Your task to perform on an android device: toggle pop-ups in chrome Image 0: 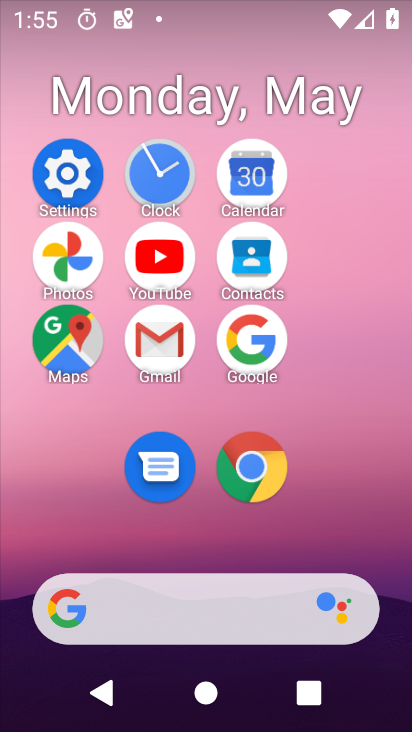
Step 0: click (263, 462)
Your task to perform on an android device: toggle pop-ups in chrome Image 1: 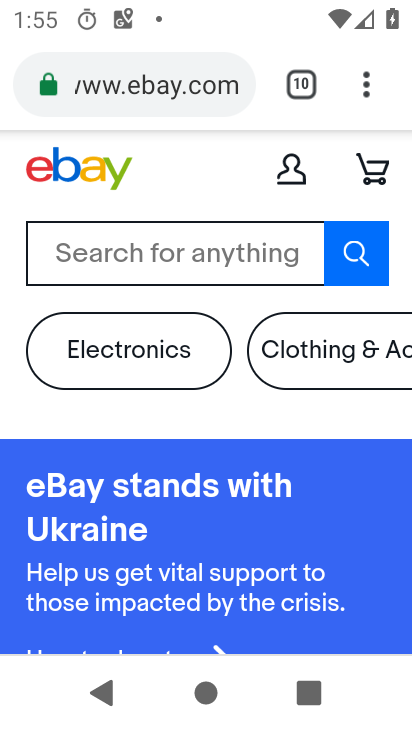
Step 1: click (371, 77)
Your task to perform on an android device: toggle pop-ups in chrome Image 2: 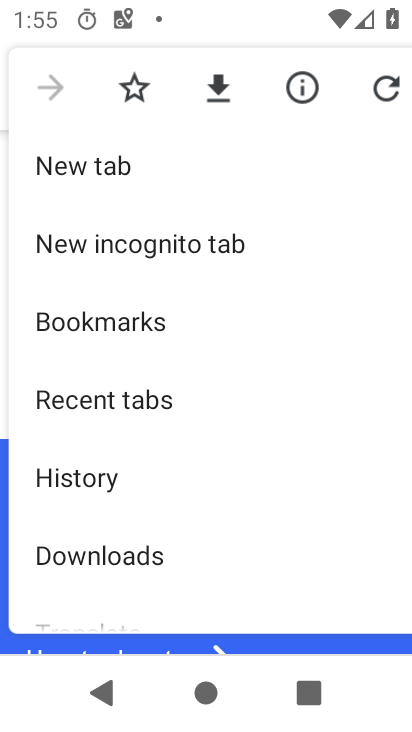
Step 2: drag from (227, 494) to (280, 189)
Your task to perform on an android device: toggle pop-ups in chrome Image 3: 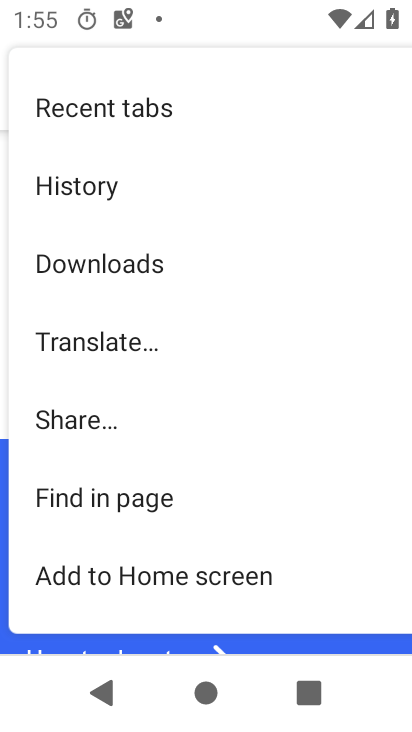
Step 3: drag from (136, 473) to (168, 164)
Your task to perform on an android device: toggle pop-ups in chrome Image 4: 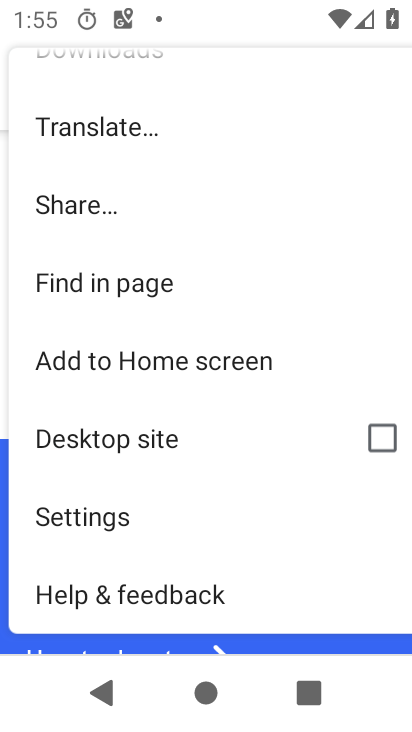
Step 4: click (124, 499)
Your task to perform on an android device: toggle pop-ups in chrome Image 5: 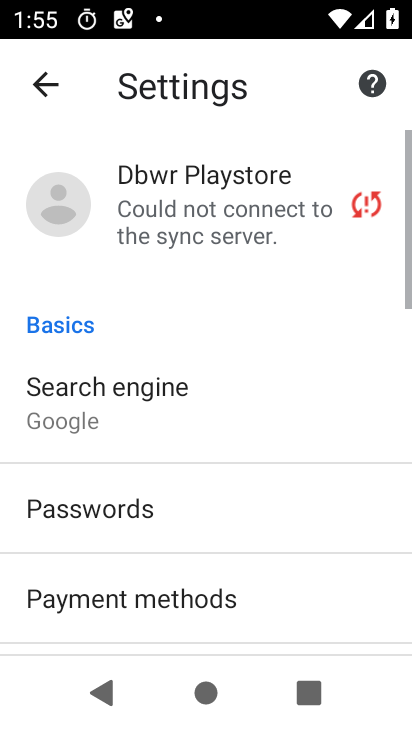
Step 5: drag from (121, 485) to (177, 143)
Your task to perform on an android device: toggle pop-ups in chrome Image 6: 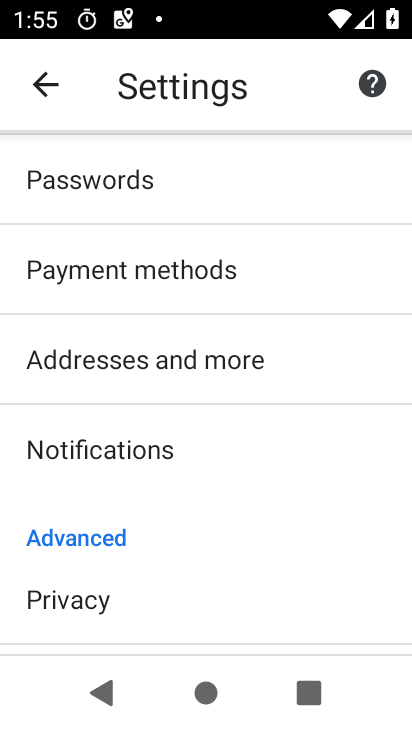
Step 6: drag from (163, 567) to (216, 228)
Your task to perform on an android device: toggle pop-ups in chrome Image 7: 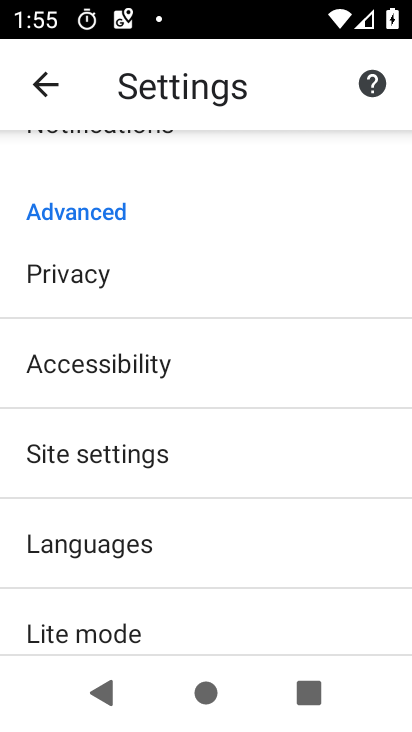
Step 7: click (192, 458)
Your task to perform on an android device: toggle pop-ups in chrome Image 8: 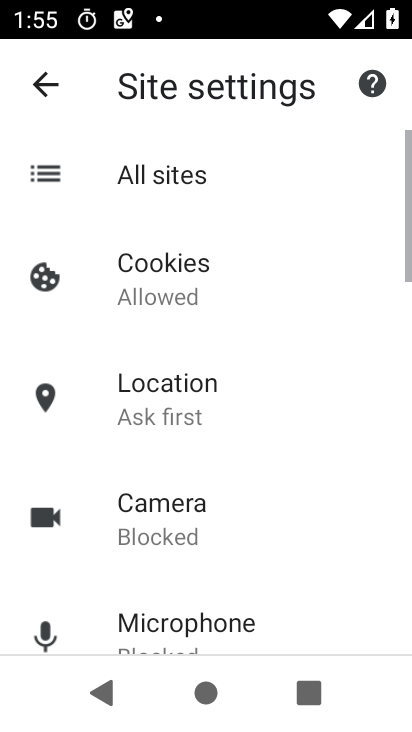
Step 8: drag from (192, 458) to (216, 180)
Your task to perform on an android device: toggle pop-ups in chrome Image 9: 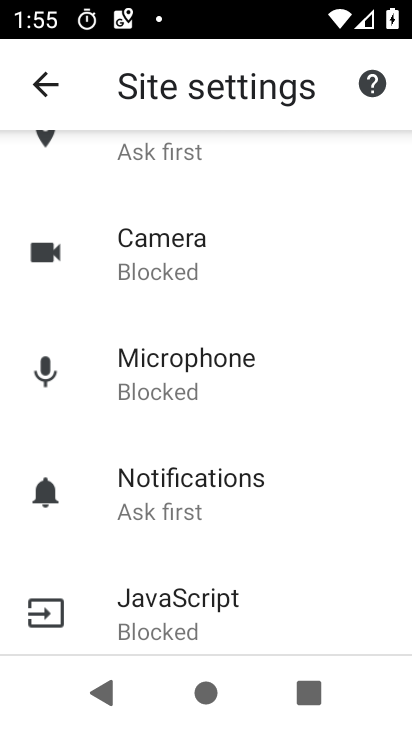
Step 9: drag from (211, 501) to (223, 198)
Your task to perform on an android device: toggle pop-ups in chrome Image 10: 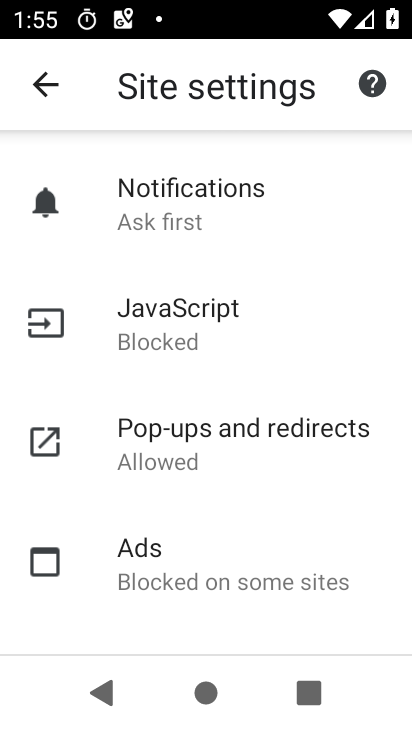
Step 10: click (254, 410)
Your task to perform on an android device: toggle pop-ups in chrome Image 11: 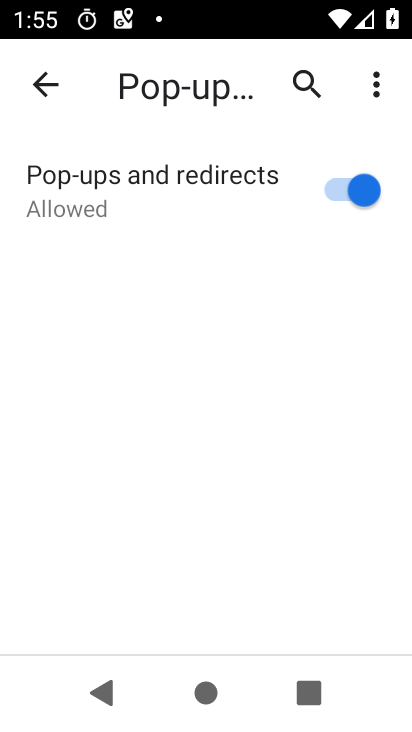
Step 11: task complete